Your task to perform on an android device: Go to CNN.com Image 0: 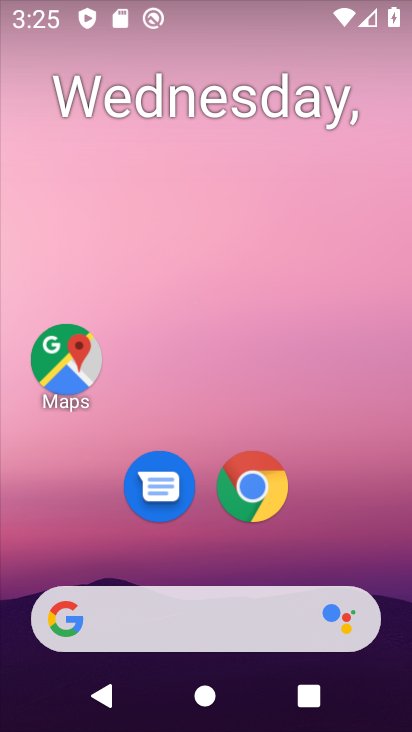
Step 0: drag from (130, 577) to (186, 163)
Your task to perform on an android device: Go to CNN.com Image 1: 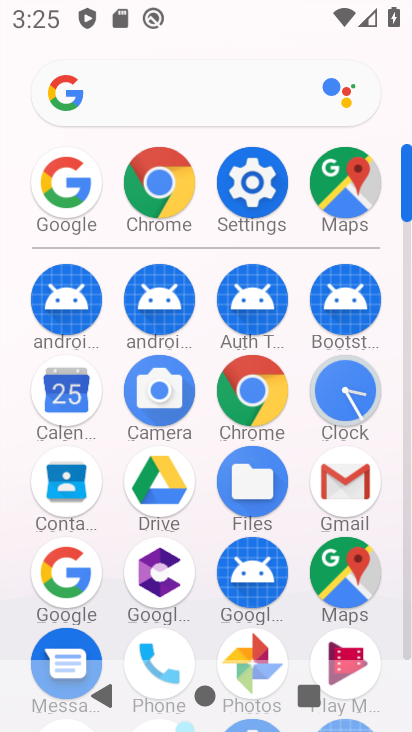
Step 1: click (67, 578)
Your task to perform on an android device: Go to CNN.com Image 2: 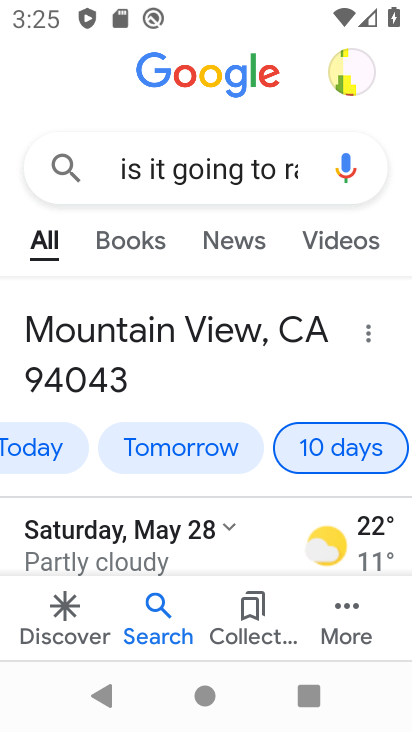
Step 2: click (180, 168)
Your task to perform on an android device: Go to CNN.com Image 3: 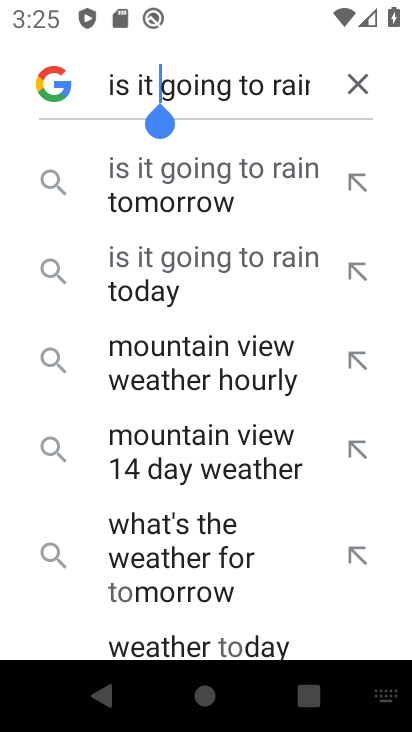
Step 3: click (352, 84)
Your task to perform on an android device: Go to CNN.com Image 4: 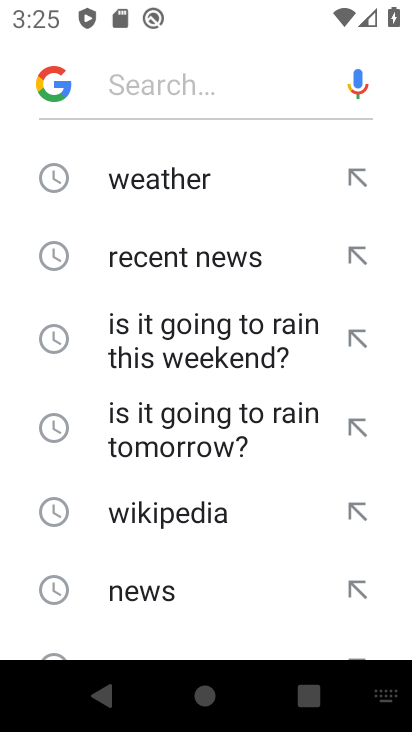
Step 4: drag from (170, 597) to (179, 305)
Your task to perform on an android device: Go to CNN.com Image 5: 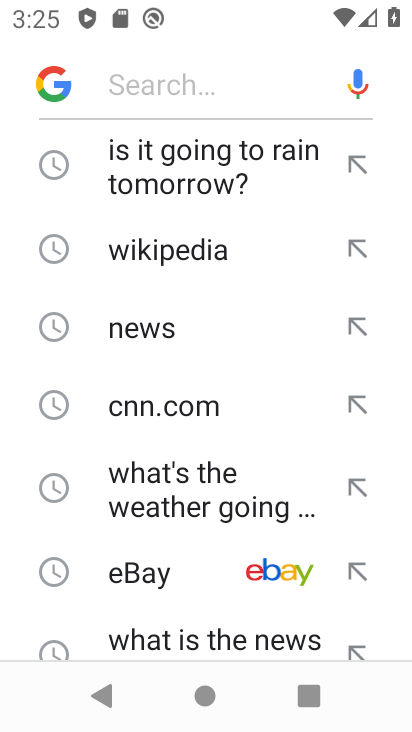
Step 5: click (161, 412)
Your task to perform on an android device: Go to CNN.com Image 6: 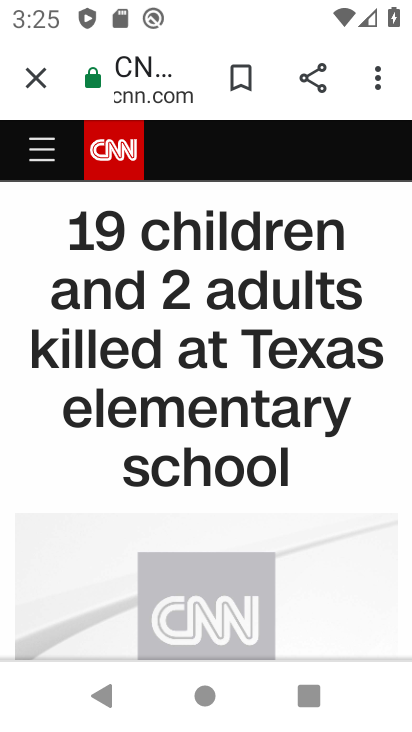
Step 6: task complete